Your task to perform on an android device: See recent photos Image 0: 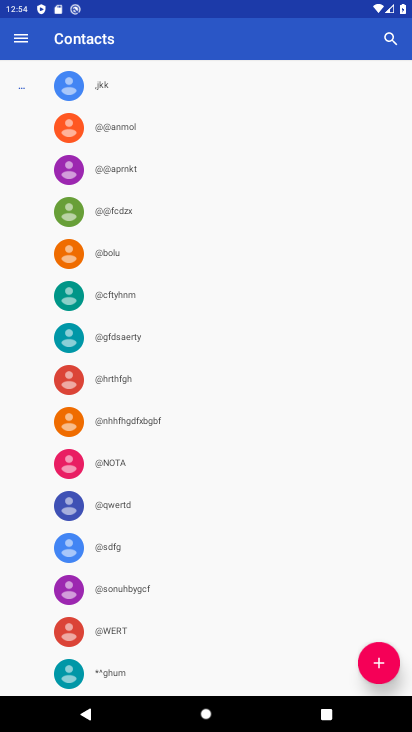
Step 0: press home button
Your task to perform on an android device: See recent photos Image 1: 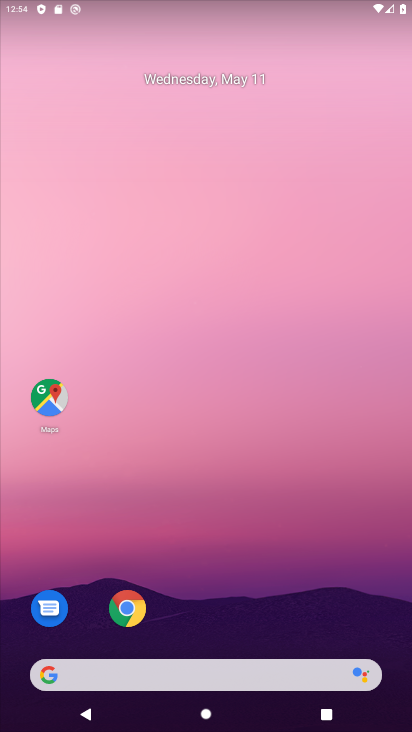
Step 1: drag from (311, 592) to (216, 236)
Your task to perform on an android device: See recent photos Image 2: 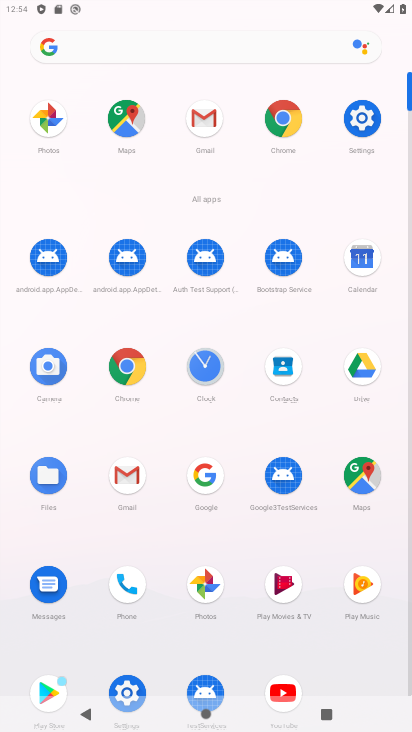
Step 2: click (216, 605)
Your task to perform on an android device: See recent photos Image 3: 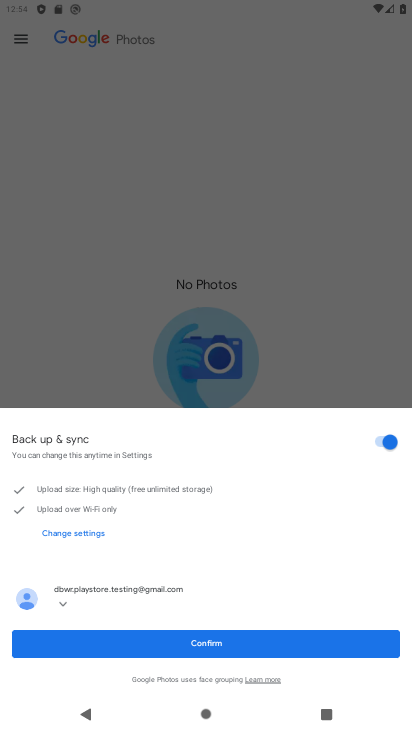
Step 3: click (234, 645)
Your task to perform on an android device: See recent photos Image 4: 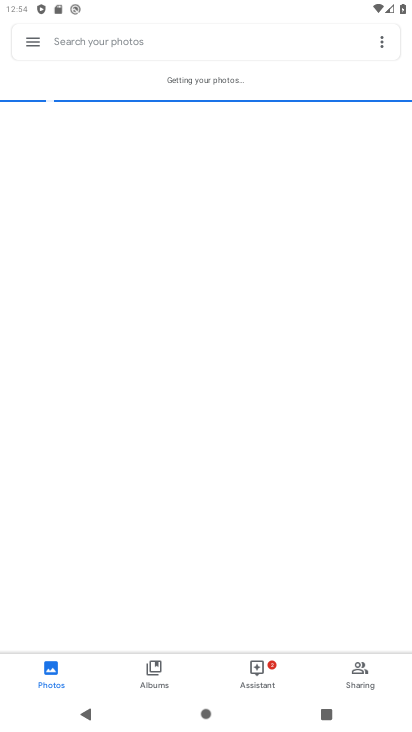
Step 4: click (359, 684)
Your task to perform on an android device: See recent photos Image 5: 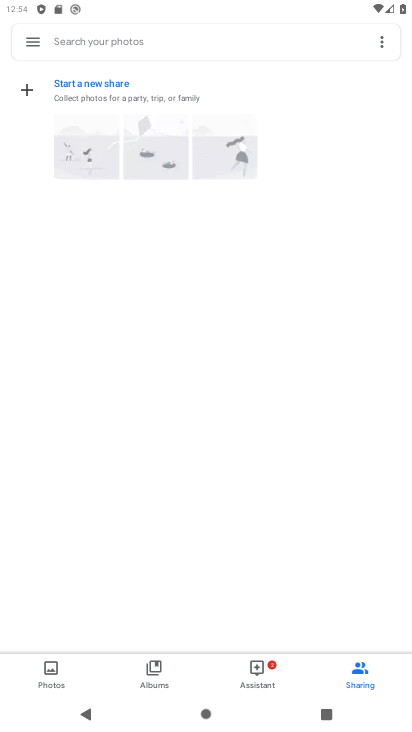
Step 5: click (25, 50)
Your task to perform on an android device: See recent photos Image 6: 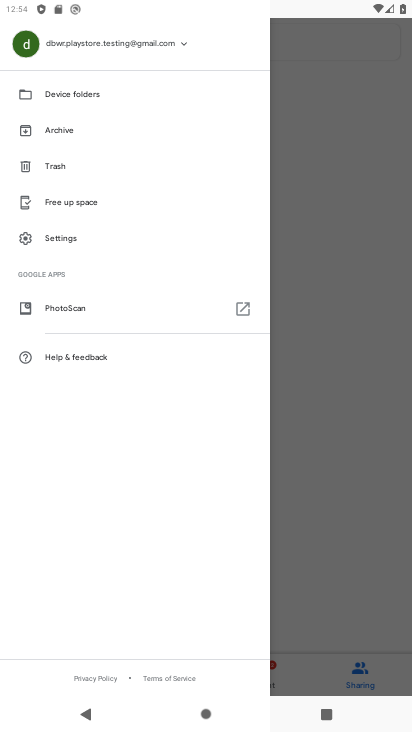
Step 6: press back button
Your task to perform on an android device: See recent photos Image 7: 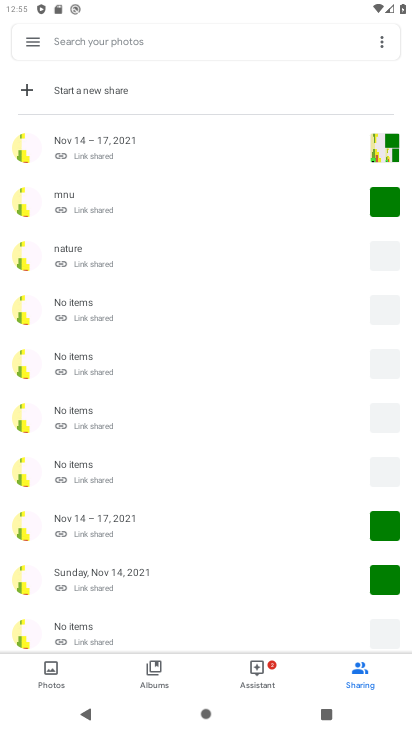
Step 7: click (47, 667)
Your task to perform on an android device: See recent photos Image 8: 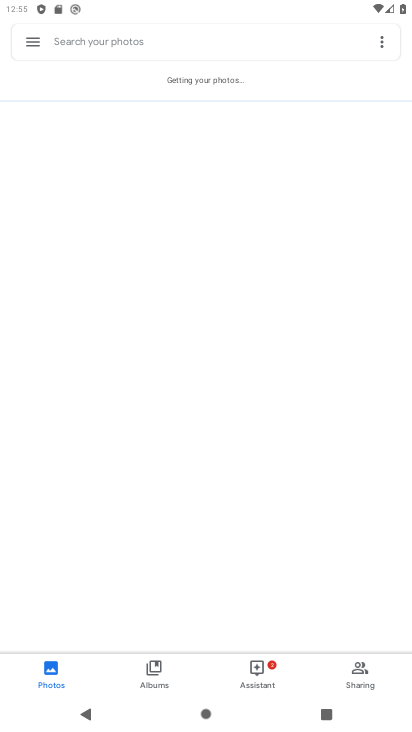
Step 8: press back button
Your task to perform on an android device: See recent photos Image 9: 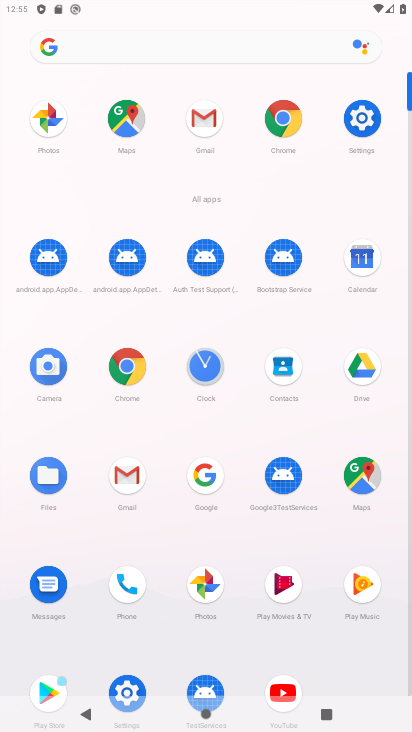
Step 9: click (202, 606)
Your task to perform on an android device: See recent photos Image 10: 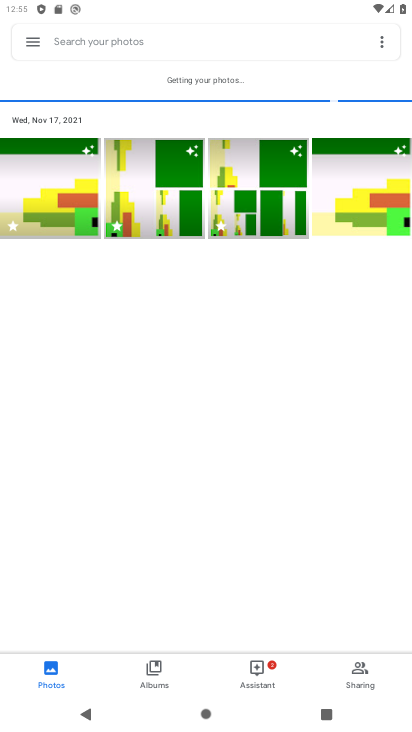
Step 10: task complete